Your task to perform on an android device: Search for pizza restaurants on Maps Image 0: 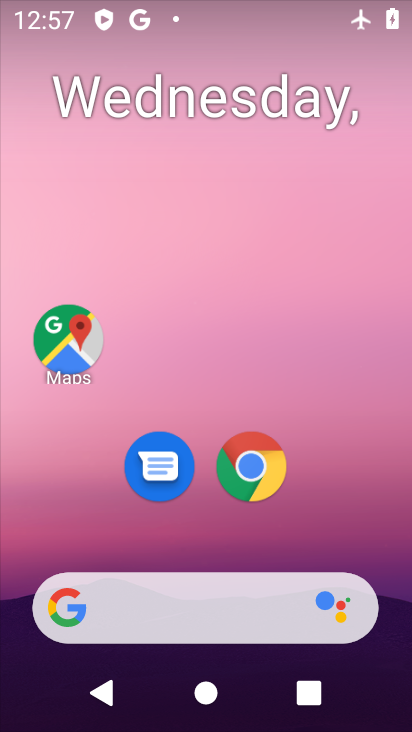
Step 0: click (56, 324)
Your task to perform on an android device: Search for pizza restaurants on Maps Image 1: 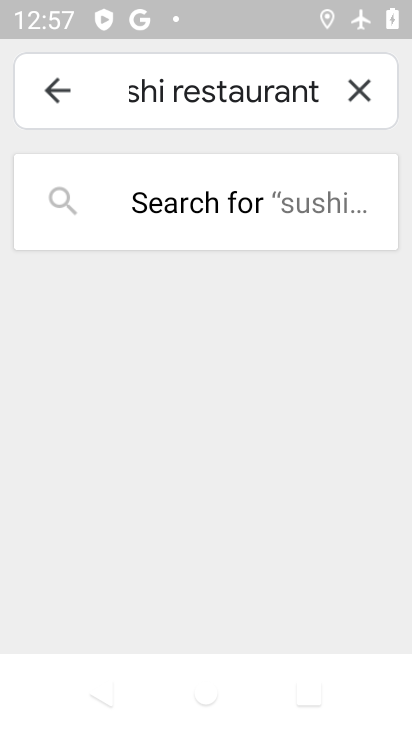
Step 1: click (339, 80)
Your task to perform on an android device: Search for pizza restaurants on Maps Image 2: 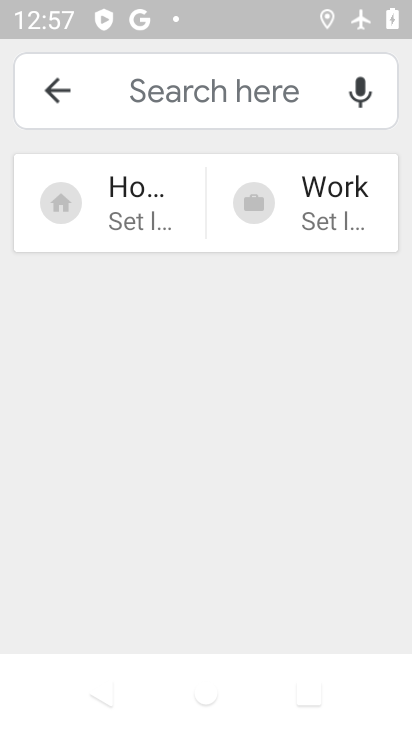
Step 2: type "pizza restaurant"
Your task to perform on an android device: Search for pizza restaurants on Maps Image 3: 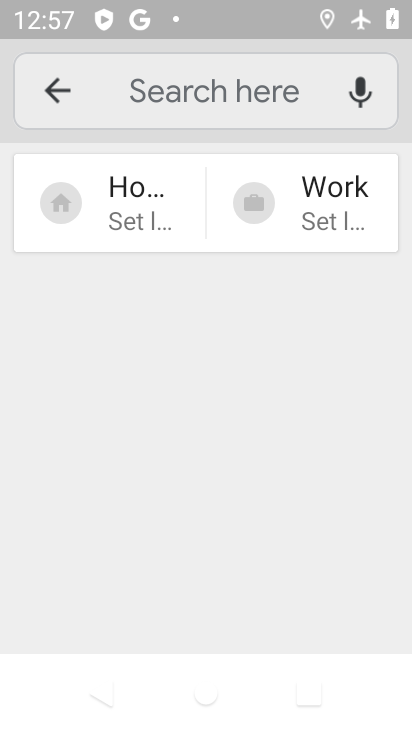
Step 3: click (115, 68)
Your task to perform on an android device: Search for pizza restaurants on Maps Image 4: 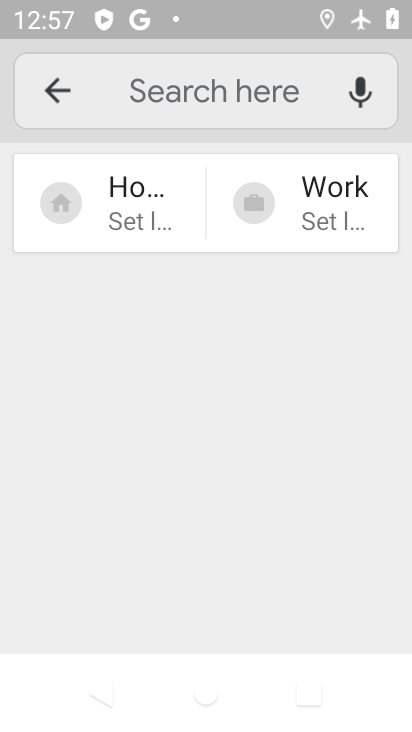
Step 4: click (115, 68)
Your task to perform on an android device: Search for pizza restaurants on Maps Image 5: 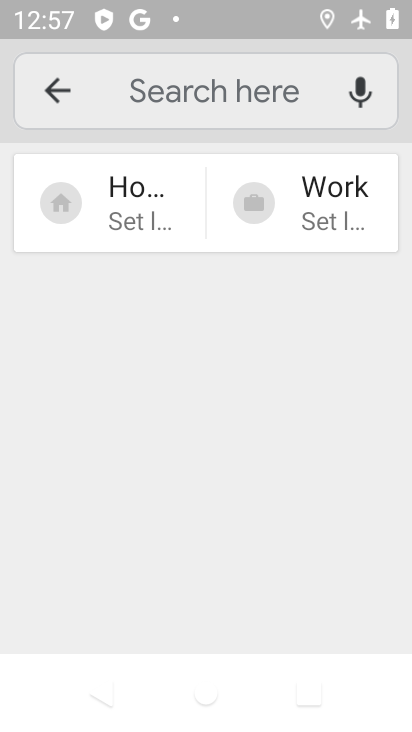
Step 5: click (38, 90)
Your task to perform on an android device: Search for pizza restaurants on Maps Image 6: 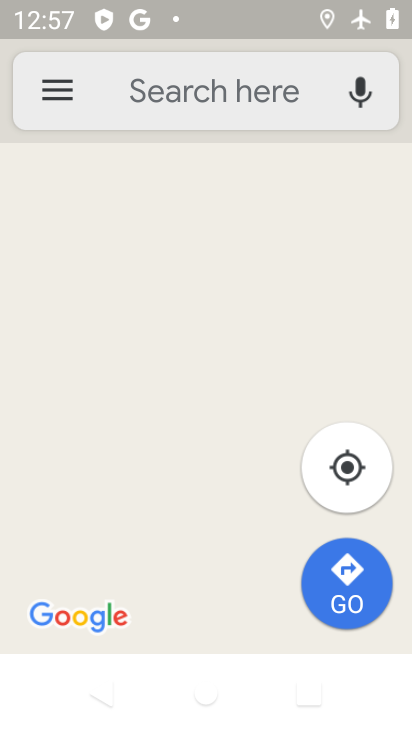
Step 6: click (227, 95)
Your task to perform on an android device: Search for pizza restaurants on Maps Image 7: 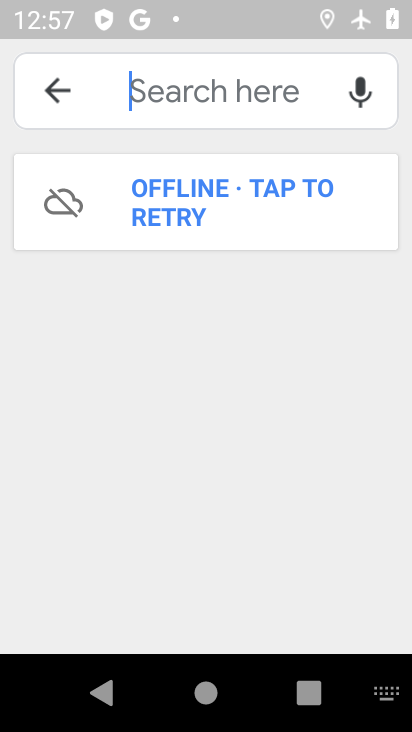
Step 7: drag from (176, 0) to (191, 536)
Your task to perform on an android device: Search for pizza restaurants on Maps Image 8: 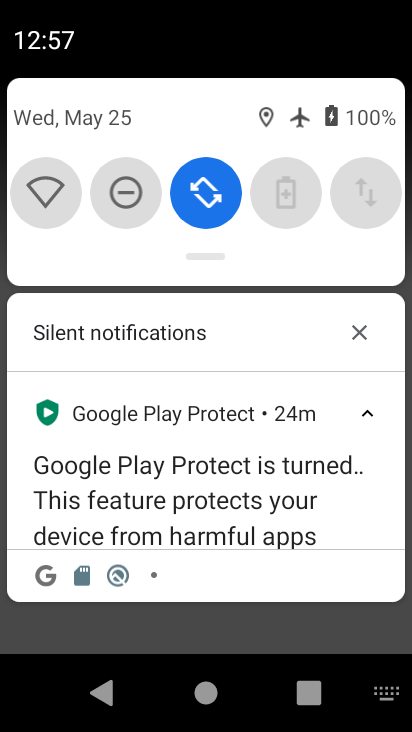
Step 8: drag from (349, 192) to (23, 229)
Your task to perform on an android device: Search for pizza restaurants on Maps Image 9: 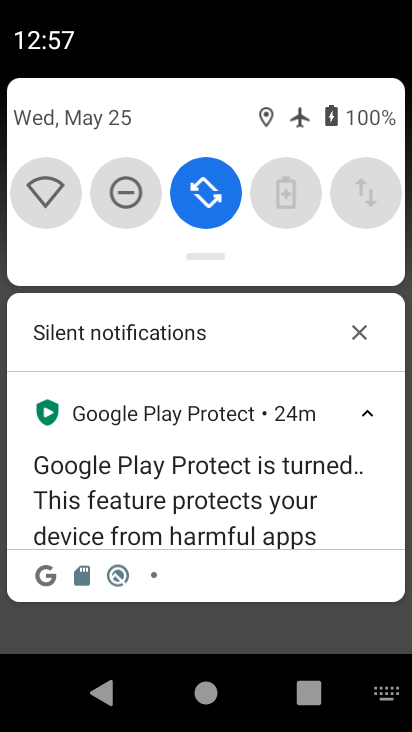
Step 9: drag from (193, 240) to (172, 545)
Your task to perform on an android device: Search for pizza restaurants on Maps Image 10: 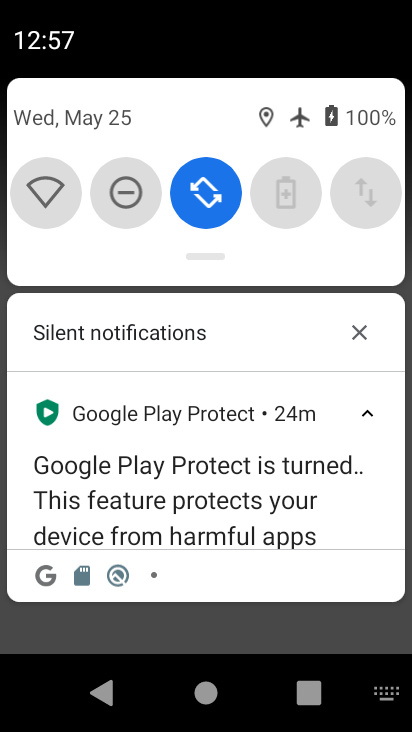
Step 10: drag from (211, 237) to (273, 636)
Your task to perform on an android device: Search for pizza restaurants on Maps Image 11: 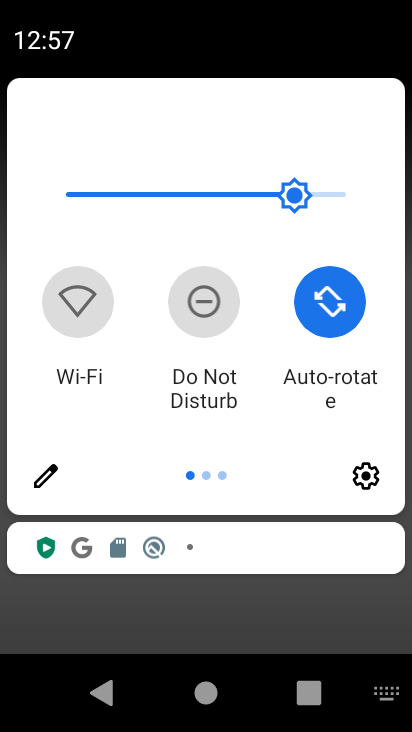
Step 11: drag from (390, 402) to (25, 465)
Your task to perform on an android device: Search for pizza restaurants on Maps Image 12: 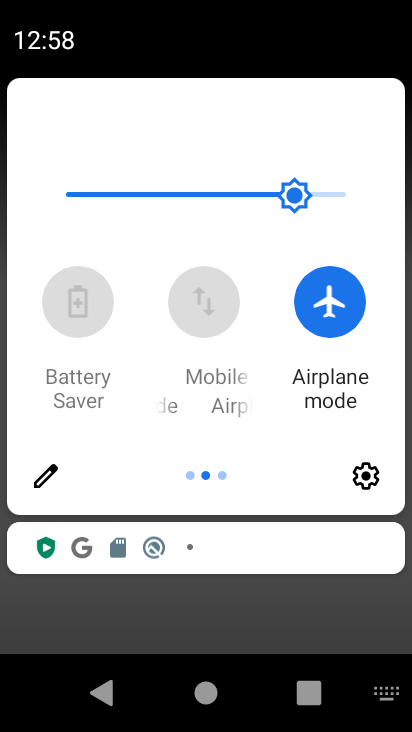
Step 12: click (339, 305)
Your task to perform on an android device: Search for pizza restaurants on Maps Image 13: 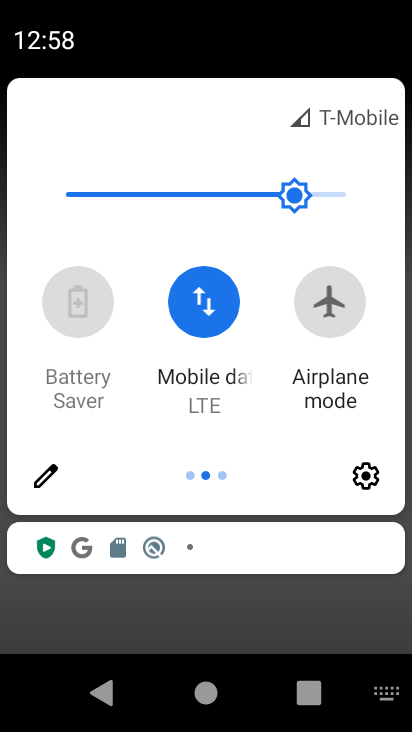
Step 13: press back button
Your task to perform on an android device: Search for pizza restaurants on Maps Image 14: 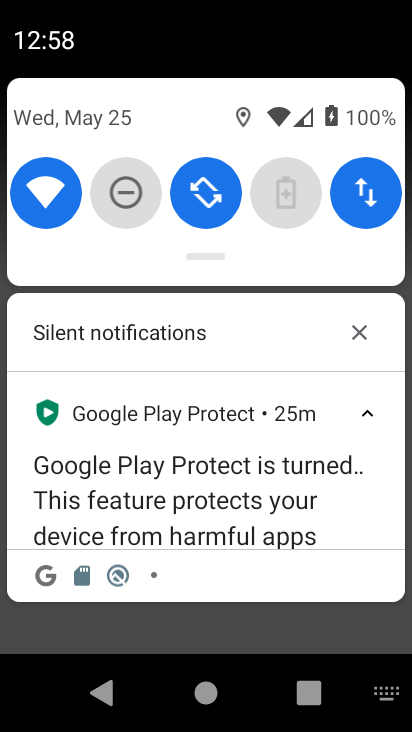
Step 14: press back button
Your task to perform on an android device: Search for pizza restaurants on Maps Image 15: 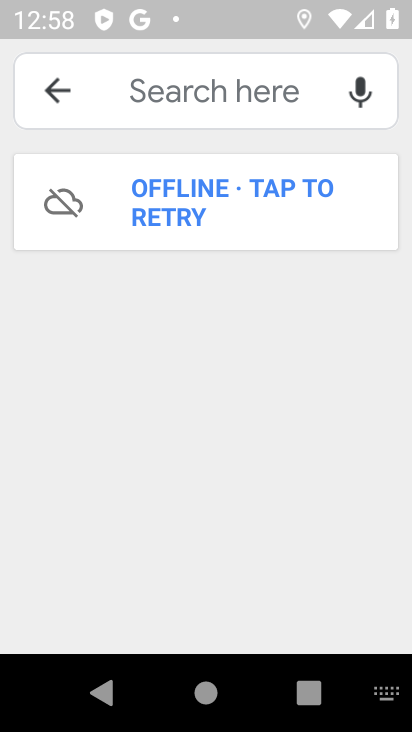
Step 15: click (264, 70)
Your task to perform on an android device: Search for pizza restaurants on Maps Image 16: 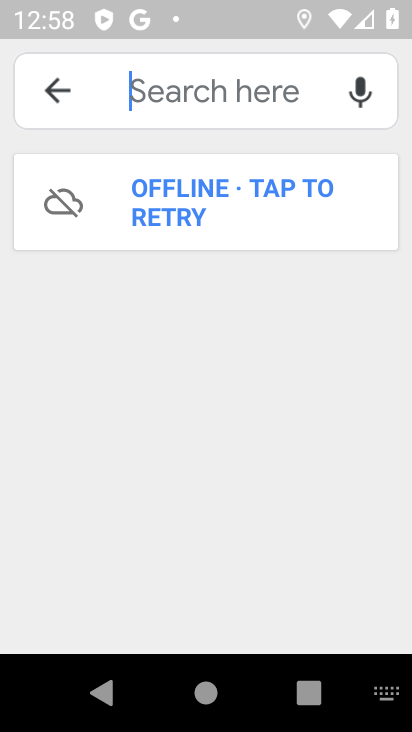
Step 16: type "pizza restaurant"
Your task to perform on an android device: Search for pizza restaurants on Maps Image 17: 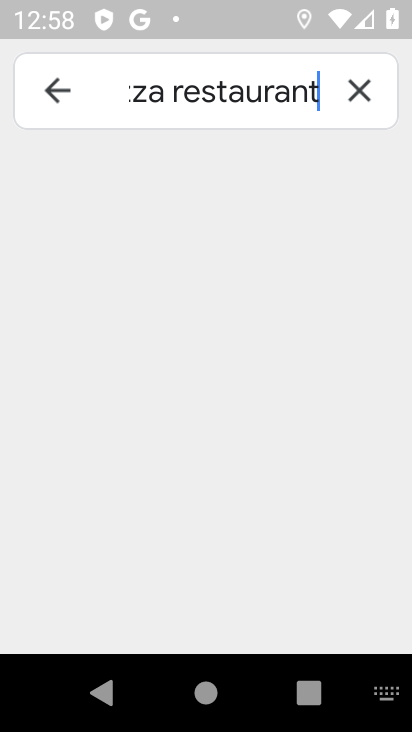
Step 17: click (53, 88)
Your task to perform on an android device: Search for pizza restaurants on Maps Image 18: 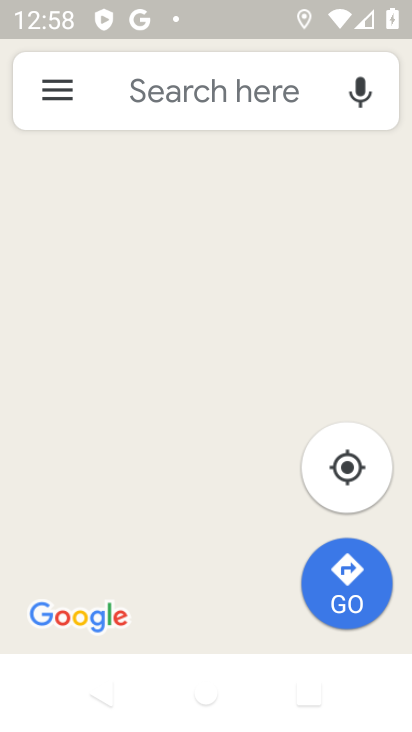
Step 18: click (53, 88)
Your task to perform on an android device: Search for pizza restaurants on Maps Image 19: 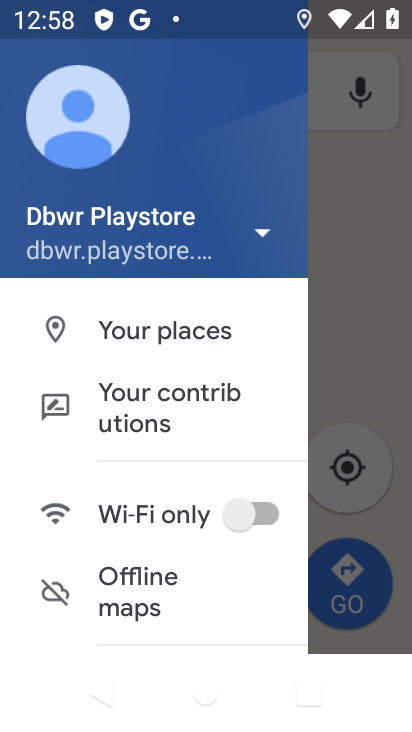
Step 19: task complete